Your task to perform on an android device: turn off smart reply in the gmail app Image 0: 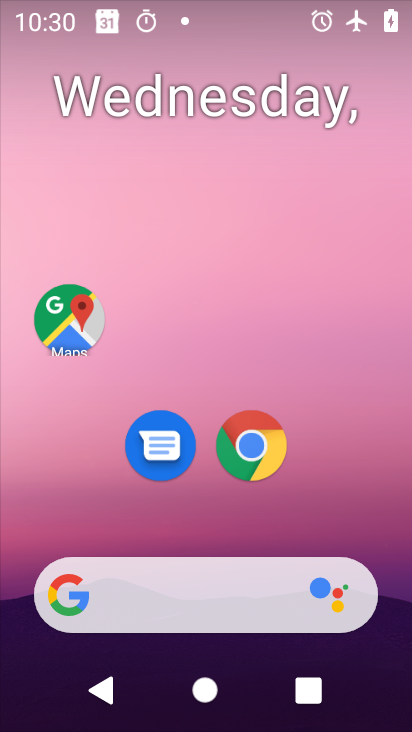
Step 0: drag from (342, 472) to (310, 327)
Your task to perform on an android device: turn off smart reply in the gmail app Image 1: 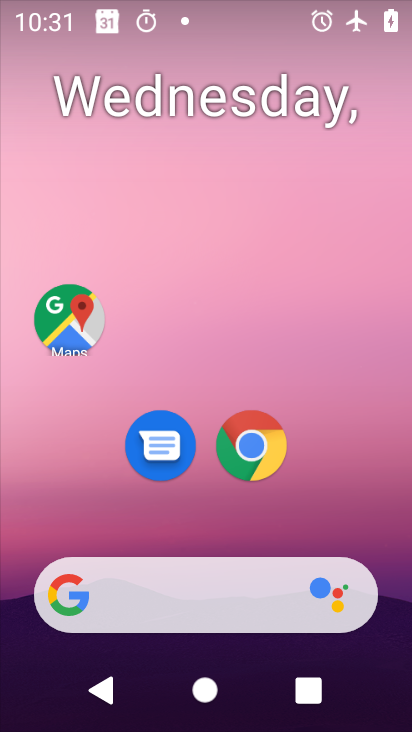
Step 1: drag from (321, 539) to (397, 16)
Your task to perform on an android device: turn off smart reply in the gmail app Image 2: 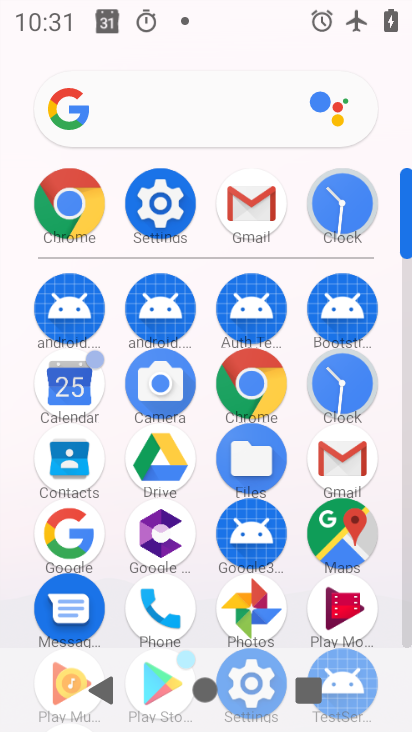
Step 2: click (250, 211)
Your task to perform on an android device: turn off smart reply in the gmail app Image 3: 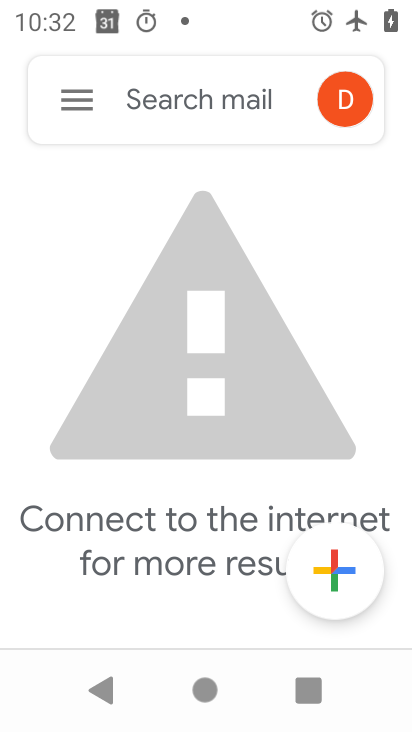
Step 3: click (92, 87)
Your task to perform on an android device: turn off smart reply in the gmail app Image 4: 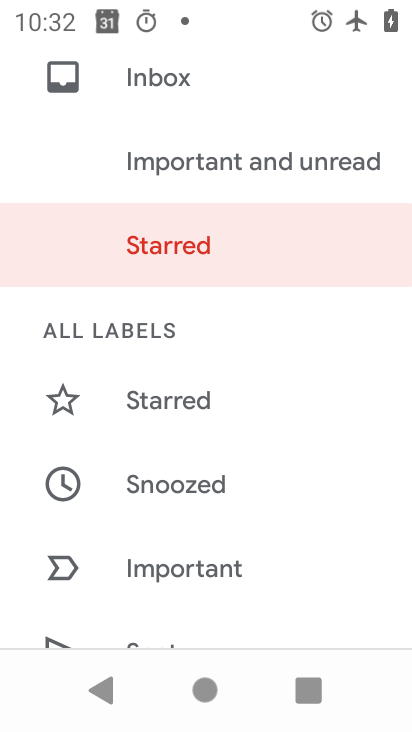
Step 4: drag from (87, 541) to (231, 107)
Your task to perform on an android device: turn off smart reply in the gmail app Image 5: 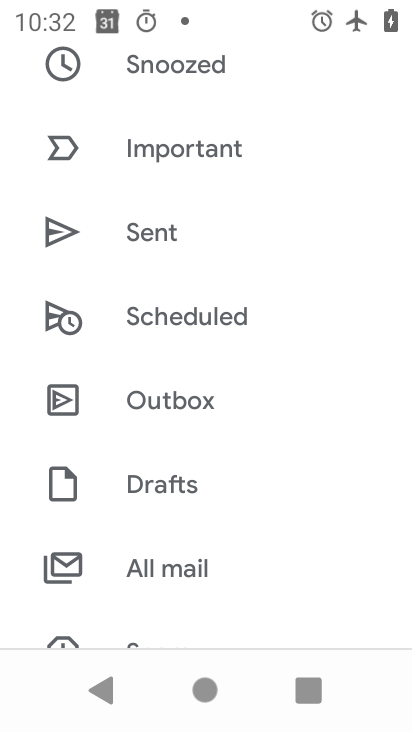
Step 5: drag from (160, 461) to (256, 156)
Your task to perform on an android device: turn off smart reply in the gmail app Image 6: 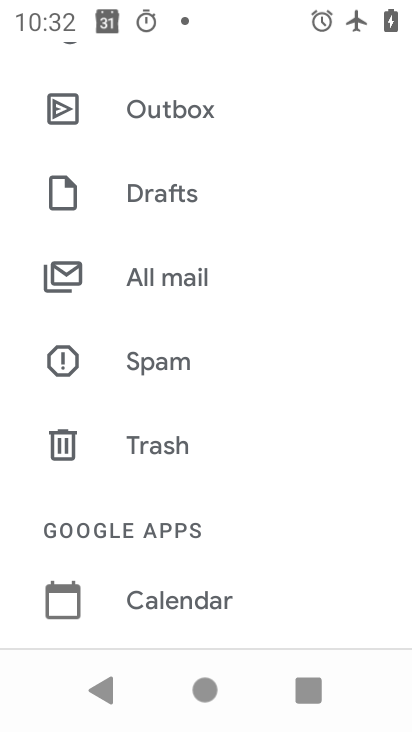
Step 6: drag from (174, 539) to (272, 226)
Your task to perform on an android device: turn off smart reply in the gmail app Image 7: 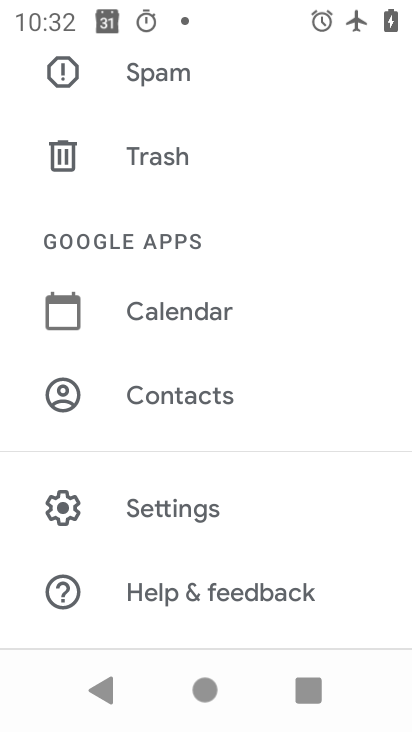
Step 7: click (162, 493)
Your task to perform on an android device: turn off smart reply in the gmail app Image 8: 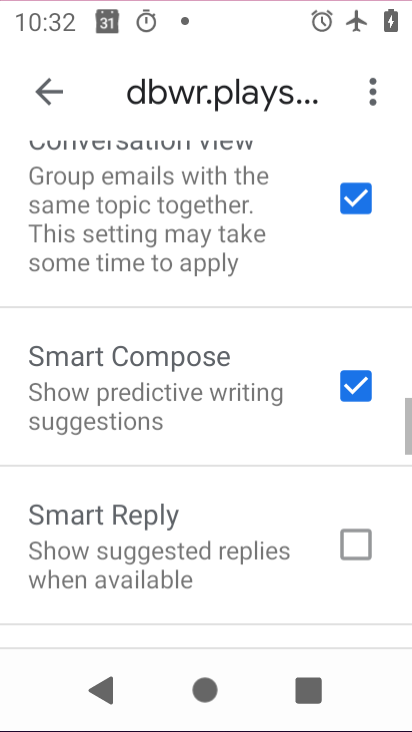
Step 8: task complete